Your task to perform on an android device: Go to ESPN.com Image 0: 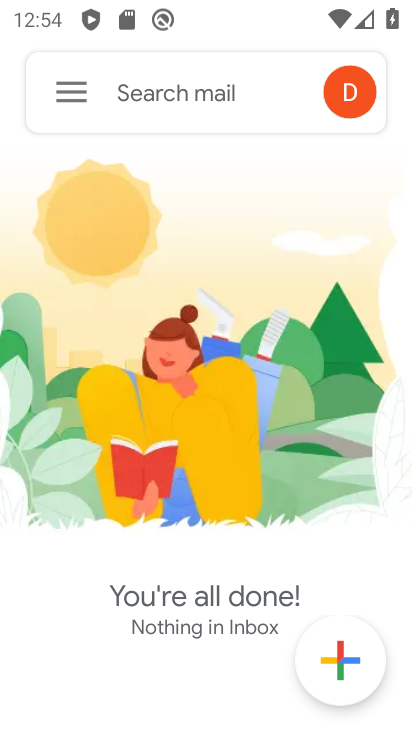
Step 0: press home button
Your task to perform on an android device: Go to ESPN.com Image 1: 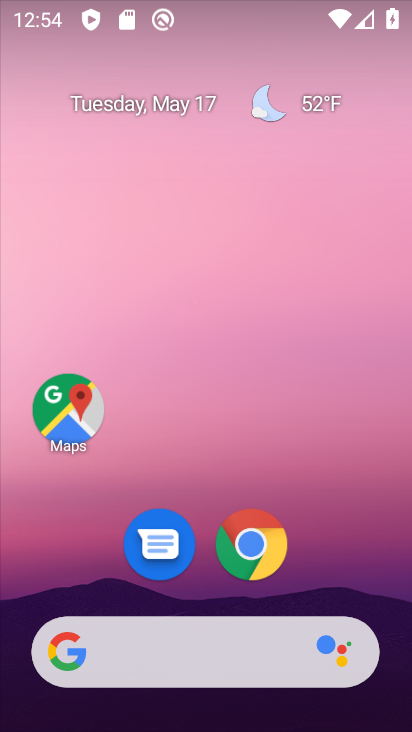
Step 1: drag from (369, 533) to (364, 96)
Your task to perform on an android device: Go to ESPN.com Image 2: 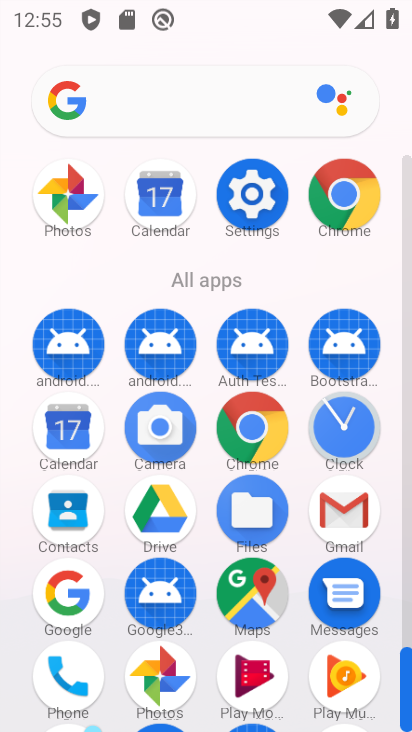
Step 2: click (262, 440)
Your task to perform on an android device: Go to ESPN.com Image 3: 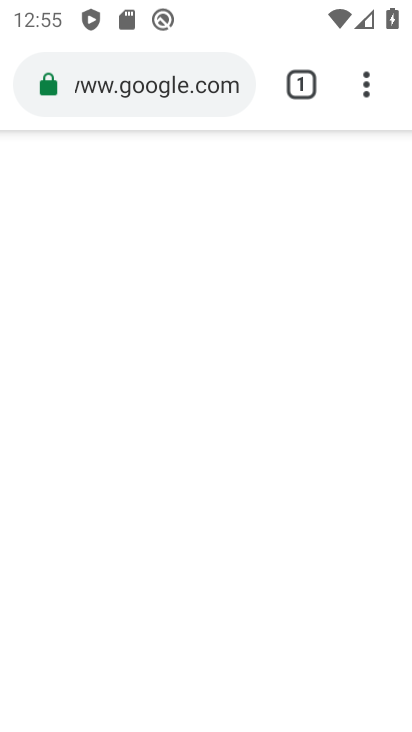
Step 3: click (187, 89)
Your task to perform on an android device: Go to ESPN.com Image 4: 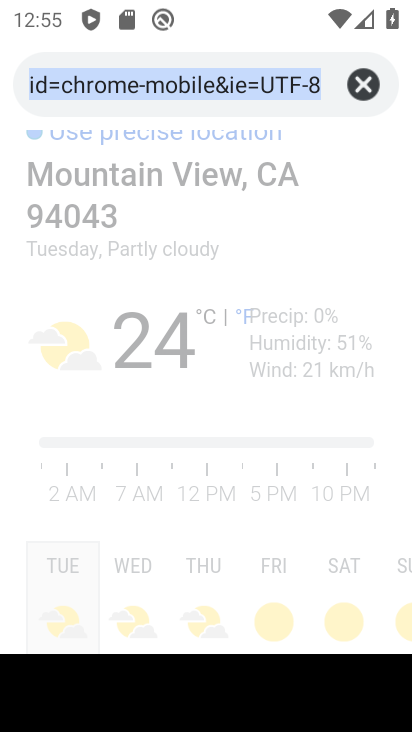
Step 4: click (359, 80)
Your task to perform on an android device: Go to ESPN.com Image 5: 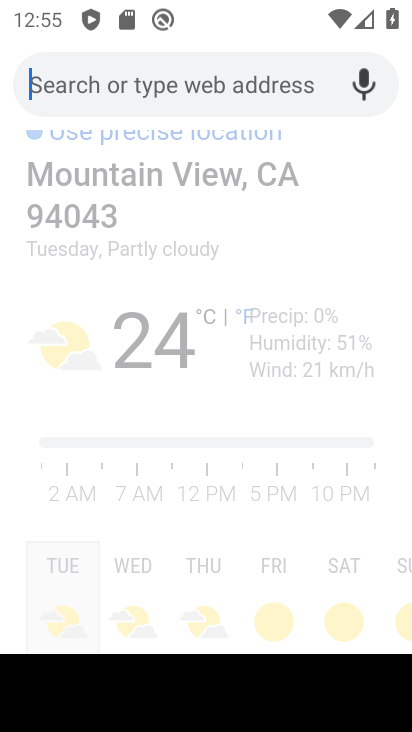
Step 5: type "espn.com"
Your task to perform on an android device: Go to ESPN.com Image 6: 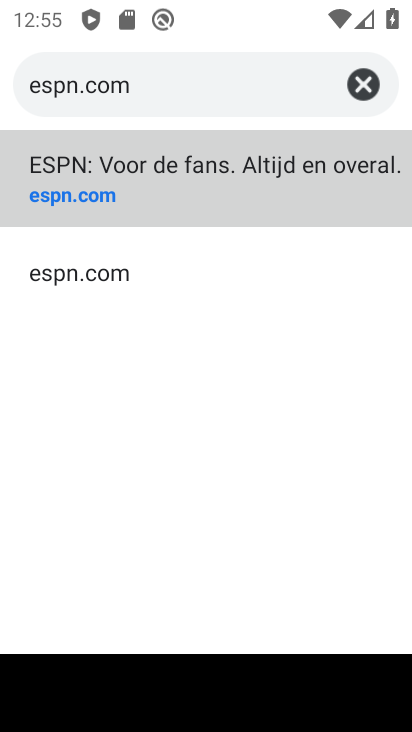
Step 6: click (85, 180)
Your task to perform on an android device: Go to ESPN.com Image 7: 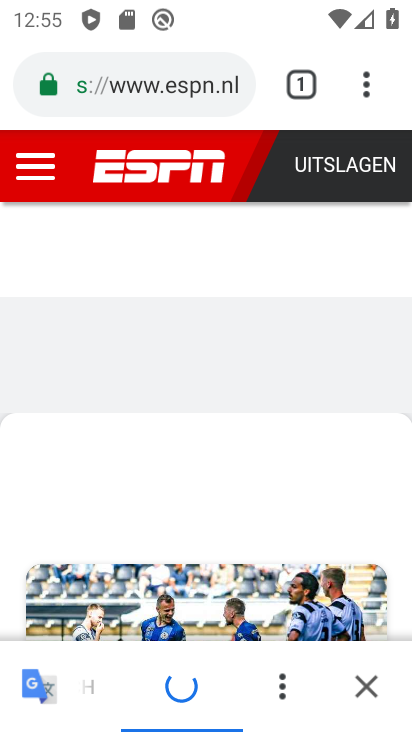
Step 7: task complete